Your task to perform on an android device: add a label to a message in the gmail app Image 0: 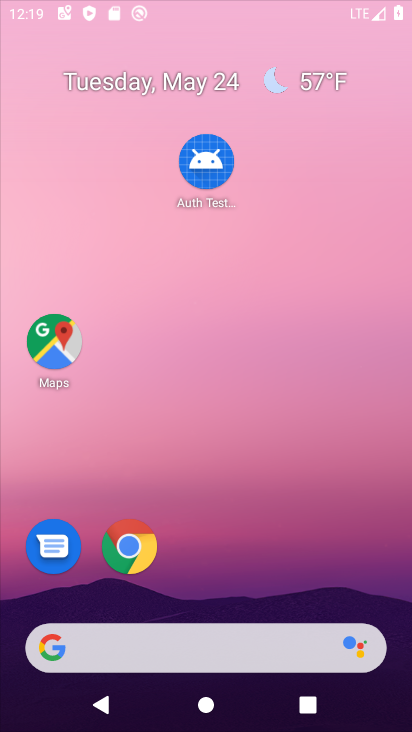
Step 0: click (239, 71)
Your task to perform on an android device: add a label to a message in the gmail app Image 1: 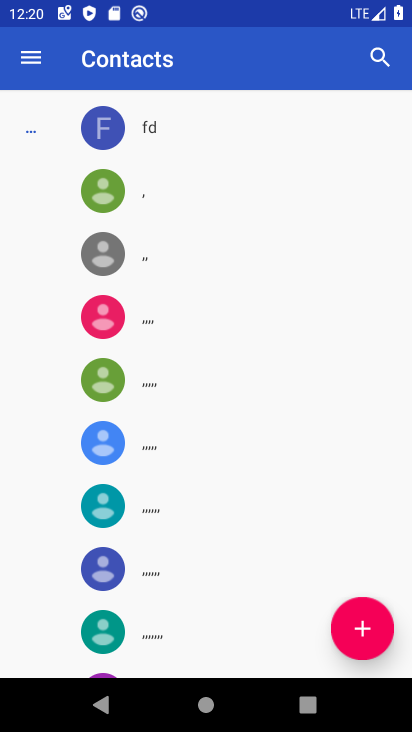
Step 1: press home button
Your task to perform on an android device: add a label to a message in the gmail app Image 2: 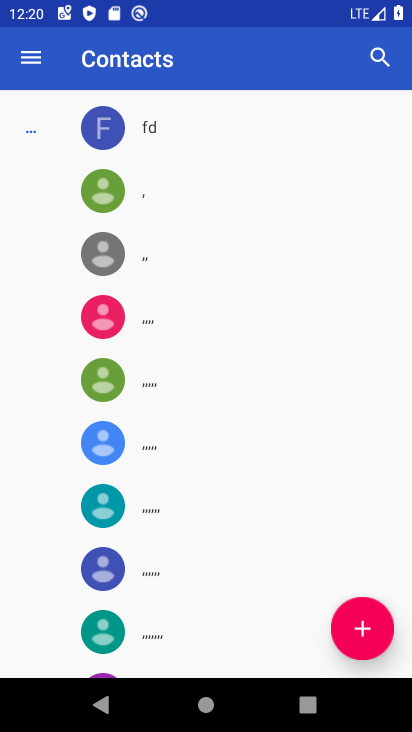
Step 2: press home button
Your task to perform on an android device: add a label to a message in the gmail app Image 3: 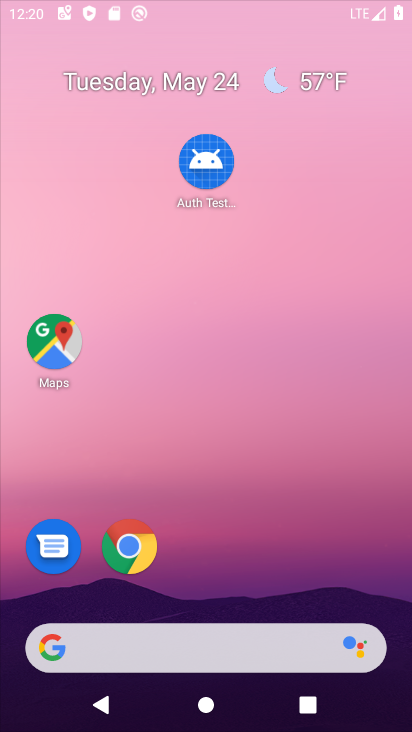
Step 3: drag from (207, 624) to (213, 54)
Your task to perform on an android device: add a label to a message in the gmail app Image 4: 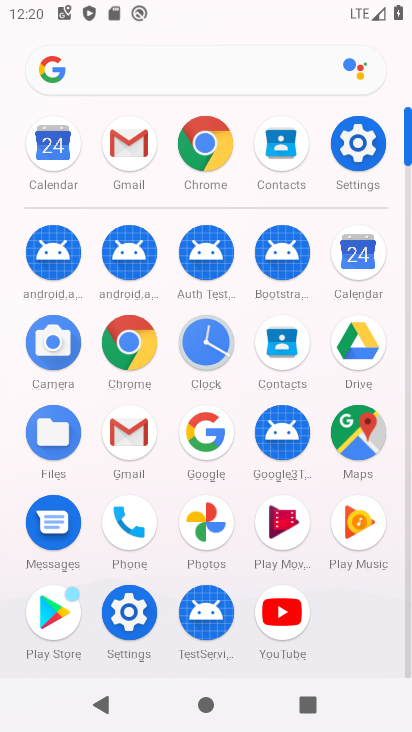
Step 4: click (126, 417)
Your task to perform on an android device: add a label to a message in the gmail app Image 5: 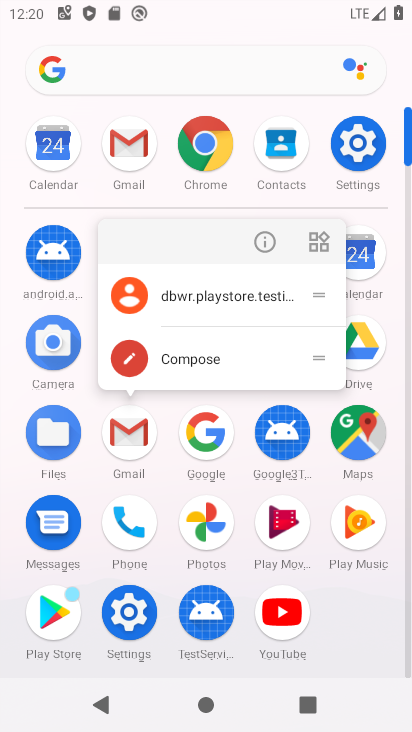
Step 5: click (166, 297)
Your task to perform on an android device: add a label to a message in the gmail app Image 6: 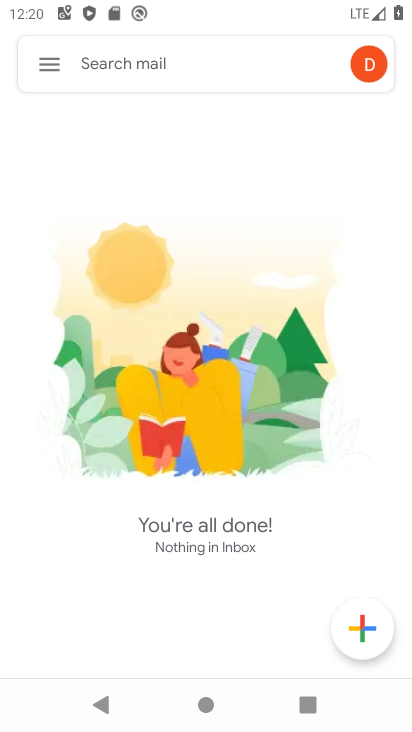
Step 6: click (34, 66)
Your task to perform on an android device: add a label to a message in the gmail app Image 7: 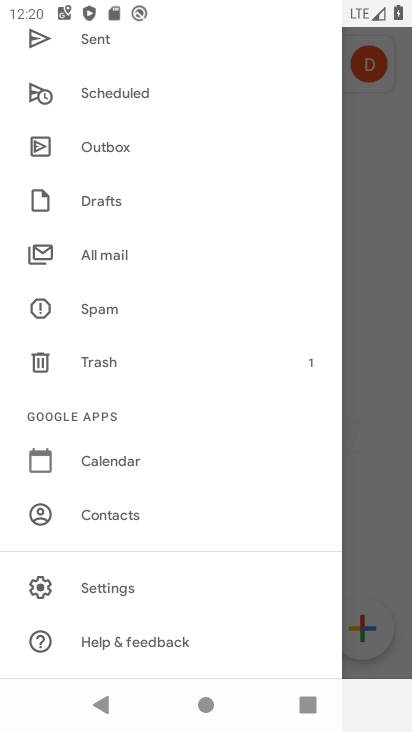
Step 7: drag from (96, 135) to (154, 655)
Your task to perform on an android device: add a label to a message in the gmail app Image 8: 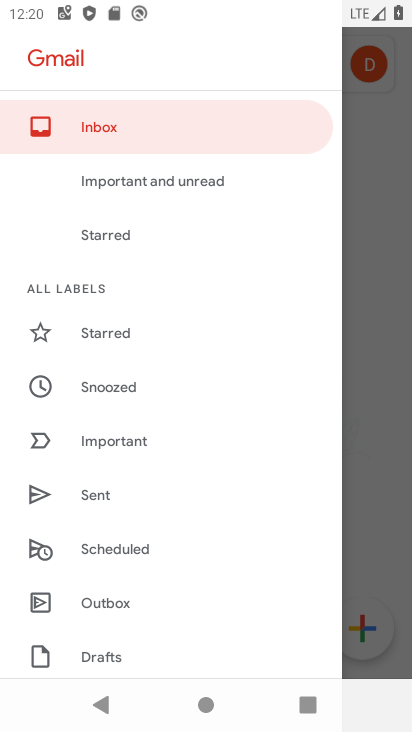
Step 8: click (131, 140)
Your task to perform on an android device: add a label to a message in the gmail app Image 9: 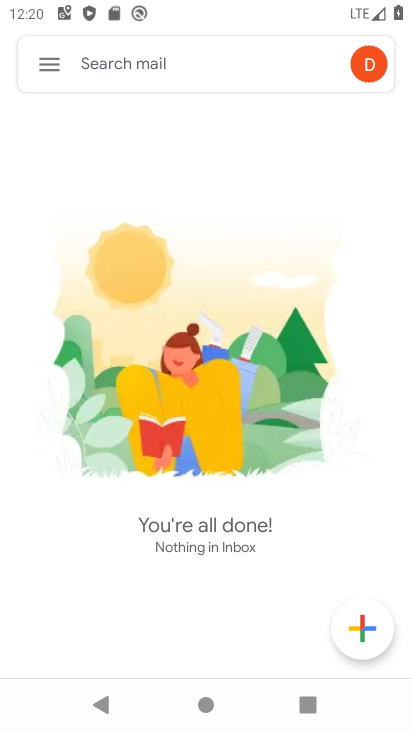
Step 9: task complete